Your task to perform on an android device: open app "Microsoft Authenticator" (install if not already installed) Image 0: 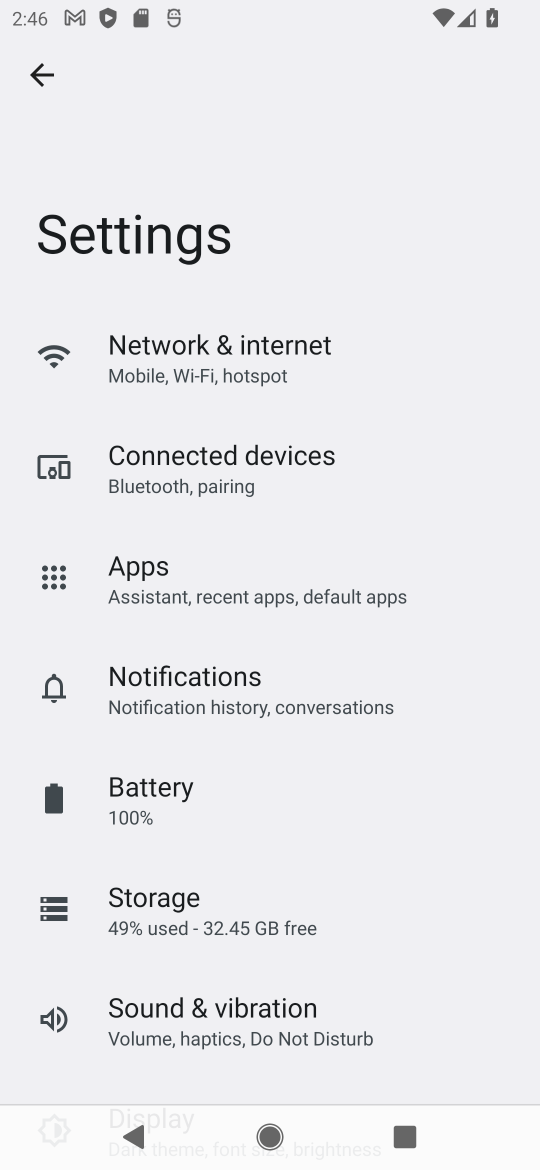
Step 0: press home button
Your task to perform on an android device: open app "Microsoft Authenticator" (install if not already installed) Image 1: 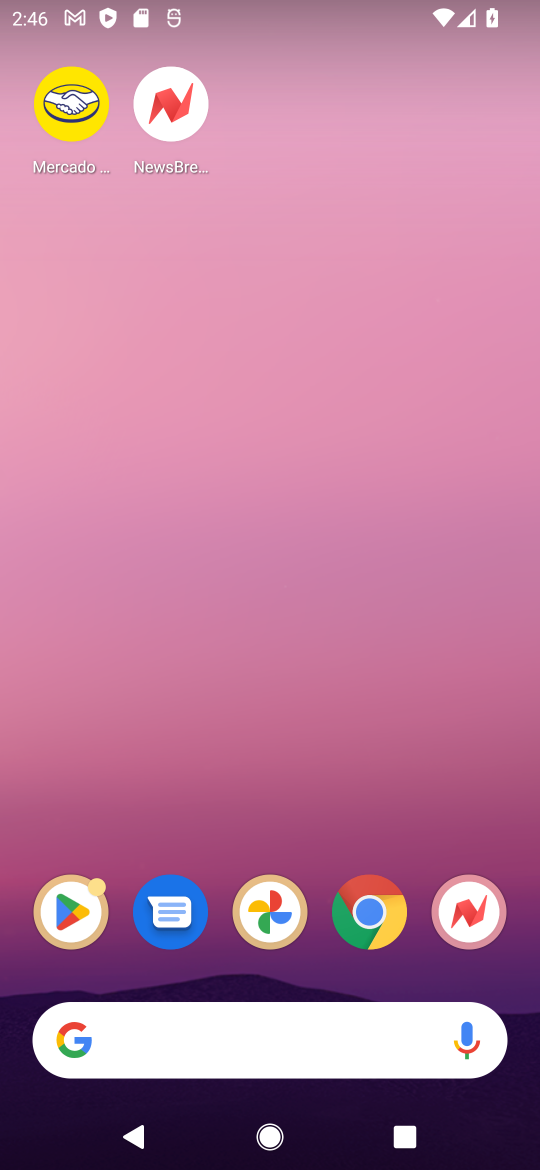
Step 1: click (60, 925)
Your task to perform on an android device: open app "Microsoft Authenticator" (install if not already installed) Image 2: 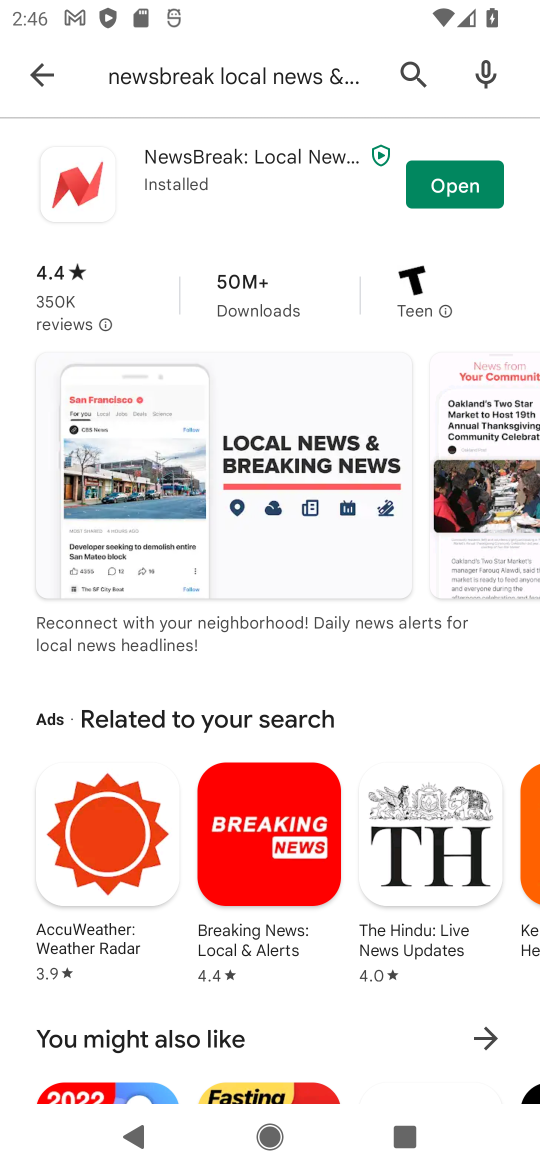
Step 2: click (396, 74)
Your task to perform on an android device: open app "Microsoft Authenticator" (install if not already installed) Image 3: 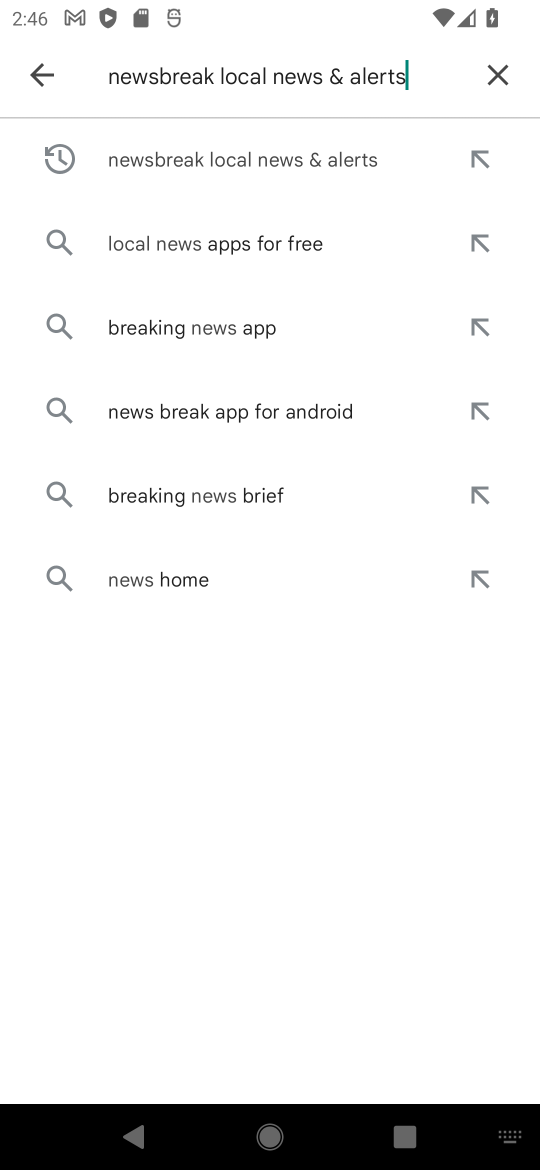
Step 3: click (507, 90)
Your task to perform on an android device: open app "Microsoft Authenticator" (install if not already installed) Image 4: 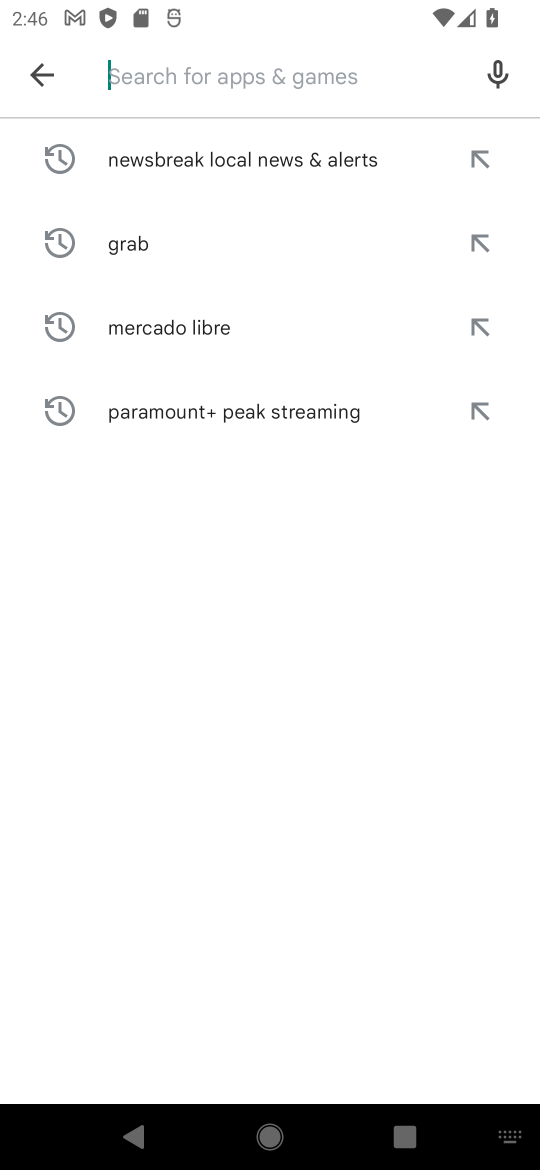
Step 4: click (215, 68)
Your task to perform on an android device: open app "Microsoft Authenticator" (install if not already installed) Image 5: 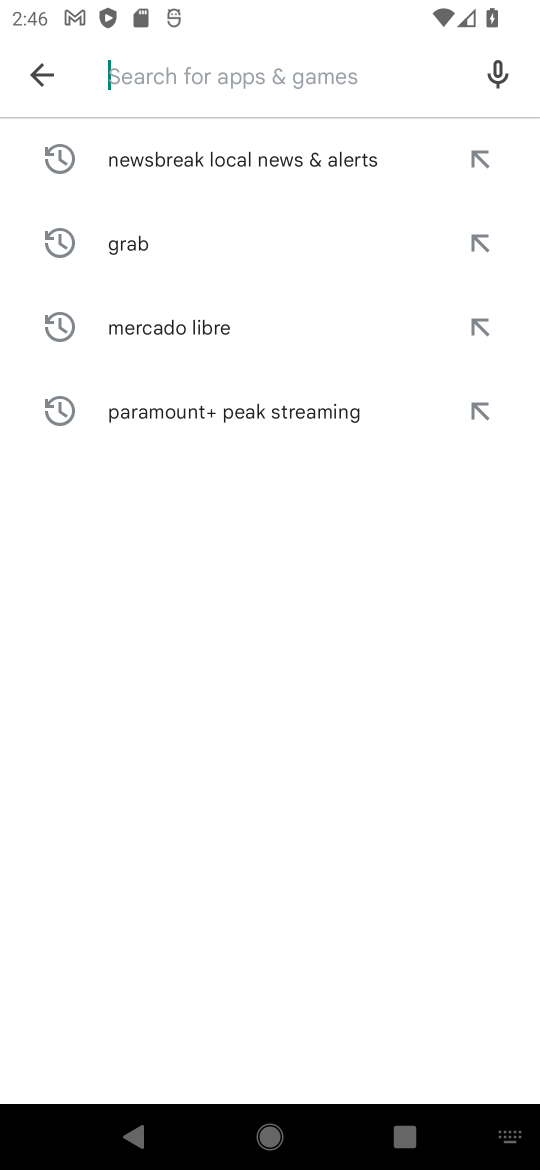
Step 5: type "Microsoft Authenticator"
Your task to perform on an android device: open app "Microsoft Authenticator" (install if not already installed) Image 6: 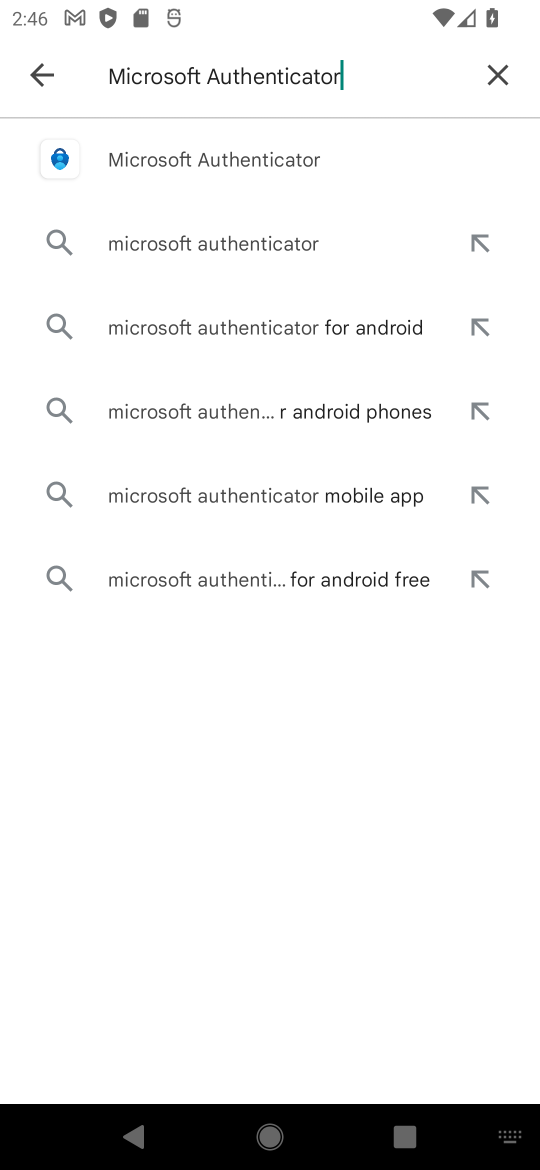
Step 6: click (135, 169)
Your task to perform on an android device: open app "Microsoft Authenticator" (install if not already installed) Image 7: 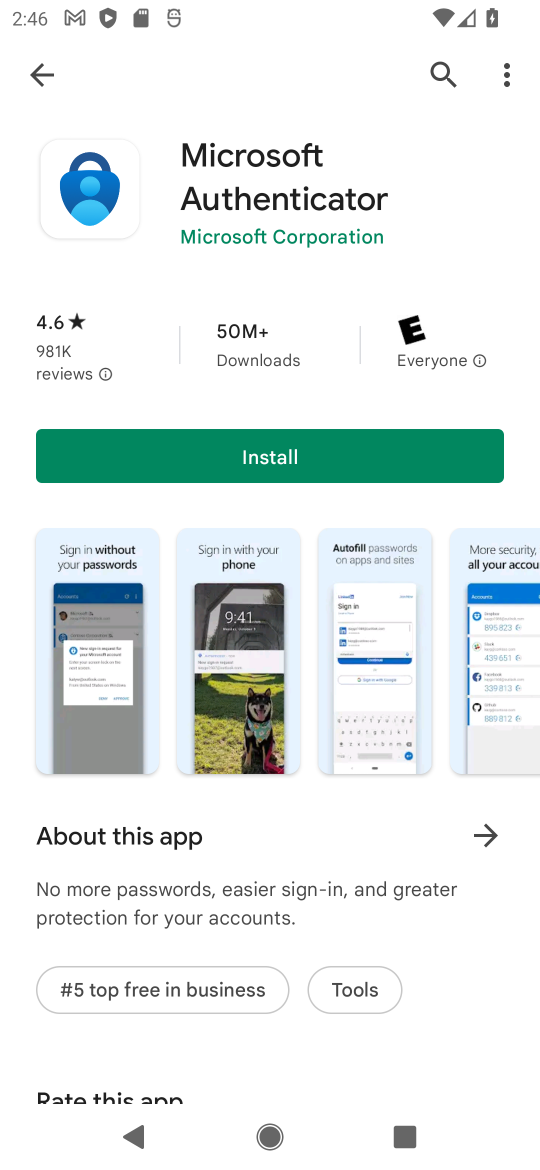
Step 7: click (275, 458)
Your task to perform on an android device: open app "Microsoft Authenticator" (install if not already installed) Image 8: 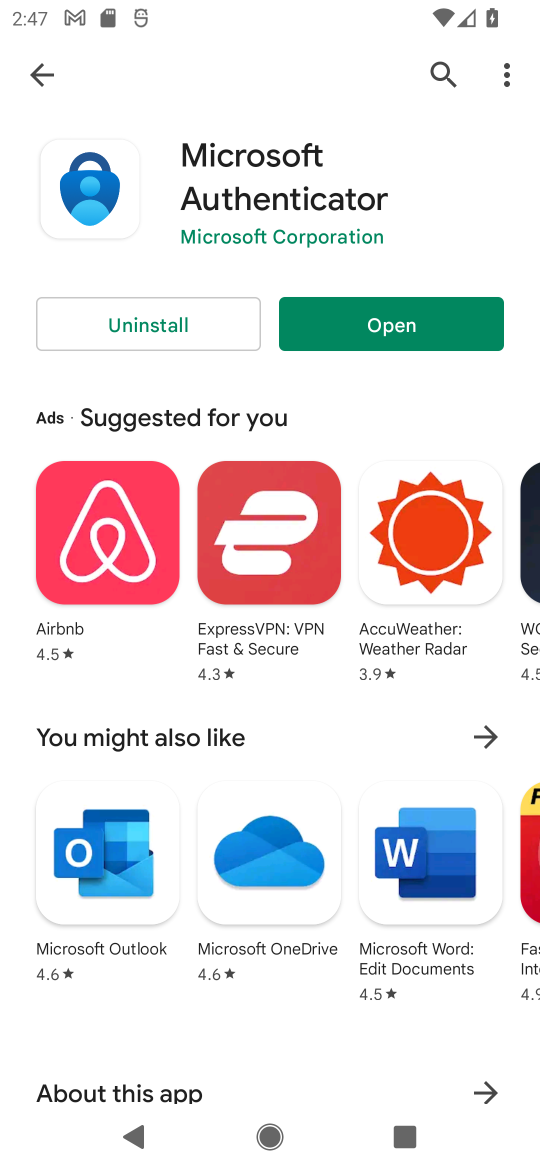
Step 8: click (340, 330)
Your task to perform on an android device: open app "Microsoft Authenticator" (install if not already installed) Image 9: 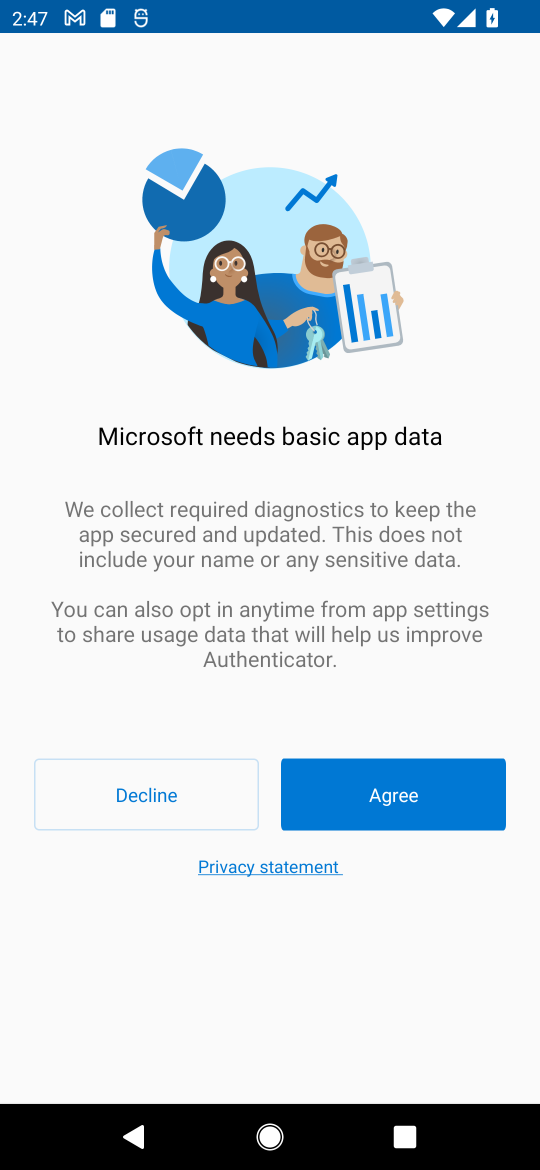
Step 9: task complete